Your task to perform on an android device: turn vacation reply on in the gmail app Image 0: 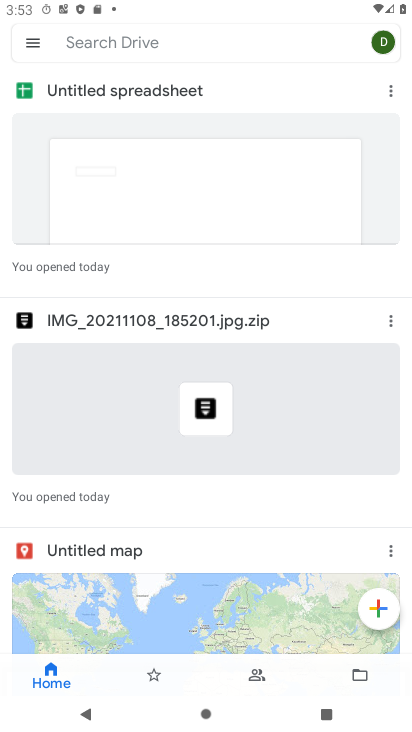
Step 0: press home button
Your task to perform on an android device: turn vacation reply on in the gmail app Image 1: 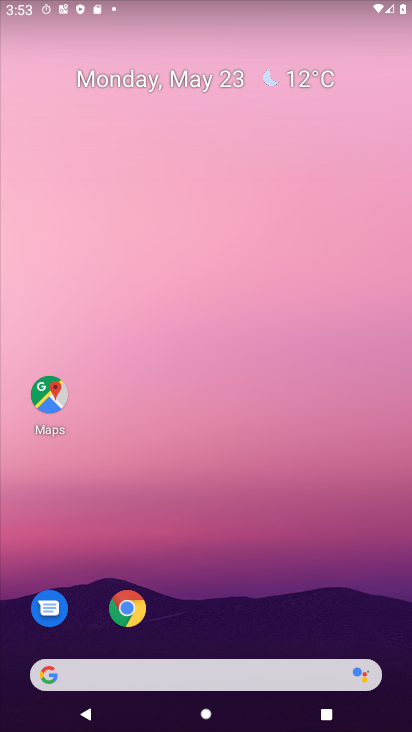
Step 1: drag from (283, 474) to (199, 6)
Your task to perform on an android device: turn vacation reply on in the gmail app Image 2: 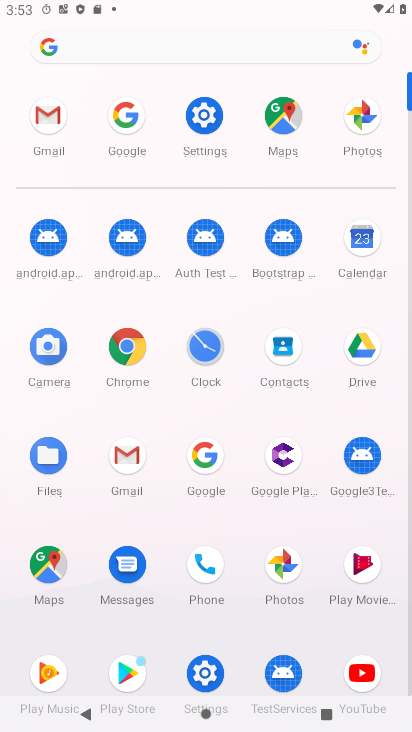
Step 2: click (134, 456)
Your task to perform on an android device: turn vacation reply on in the gmail app Image 3: 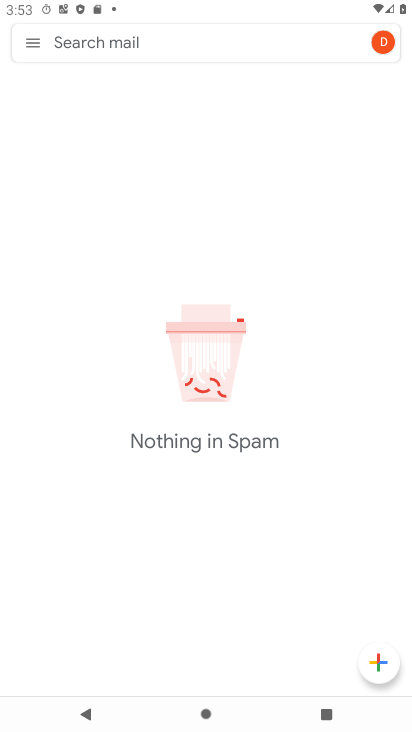
Step 3: click (40, 44)
Your task to perform on an android device: turn vacation reply on in the gmail app Image 4: 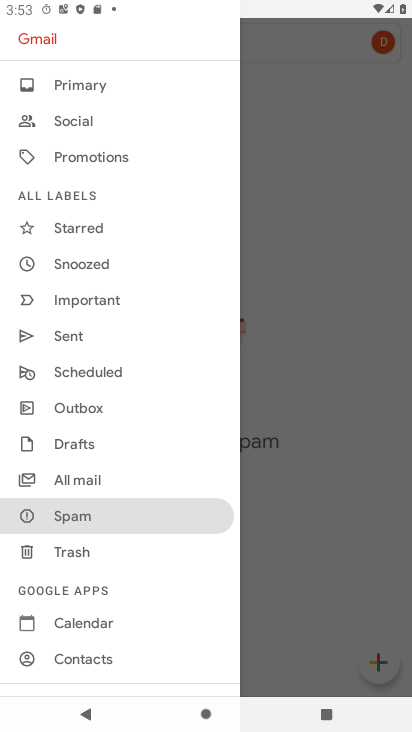
Step 4: drag from (156, 642) to (123, 182)
Your task to perform on an android device: turn vacation reply on in the gmail app Image 5: 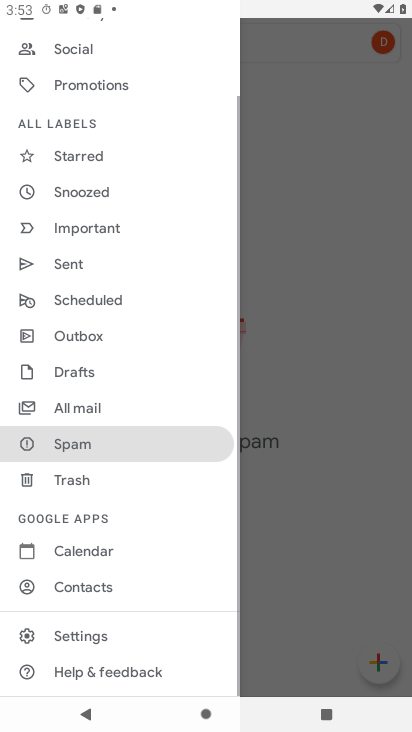
Step 5: click (98, 633)
Your task to perform on an android device: turn vacation reply on in the gmail app Image 6: 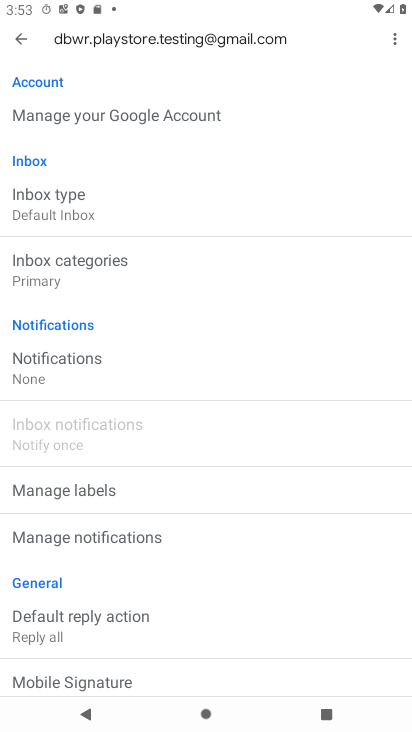
Step 6: drag from (151, 632) to (181, 58)
Your task to perform on an android device: turn vacation reply on in the gmail app Image 7: 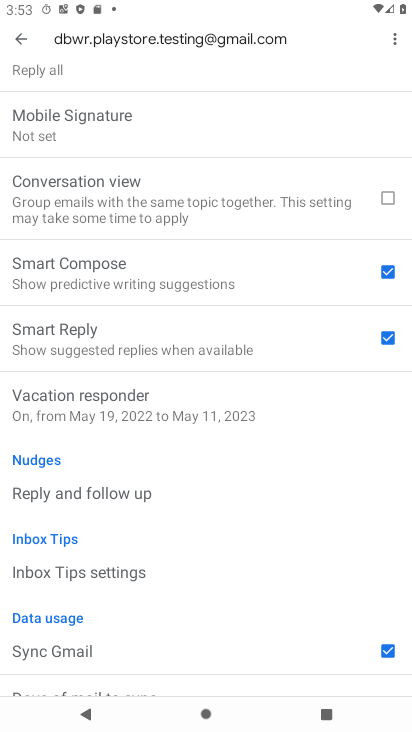
Step 7: click (160, 409)
Your task to perform on an android device: turn vacation reply on in the gmail app Image 8: 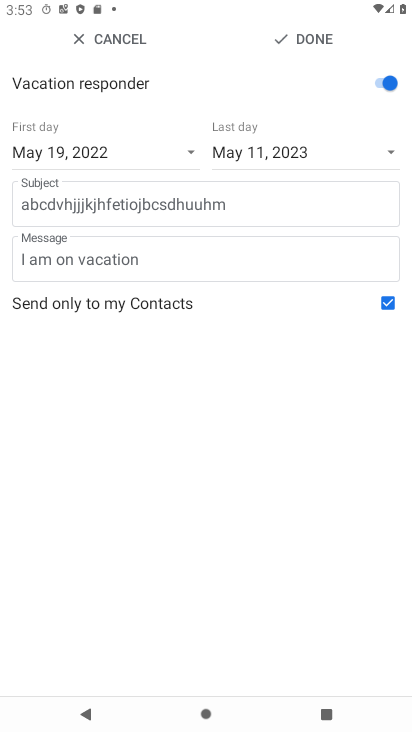
Step 8: click (320, 36)
Your task to perform on an android device: turn vacation reply on in the gmail app Image 9: 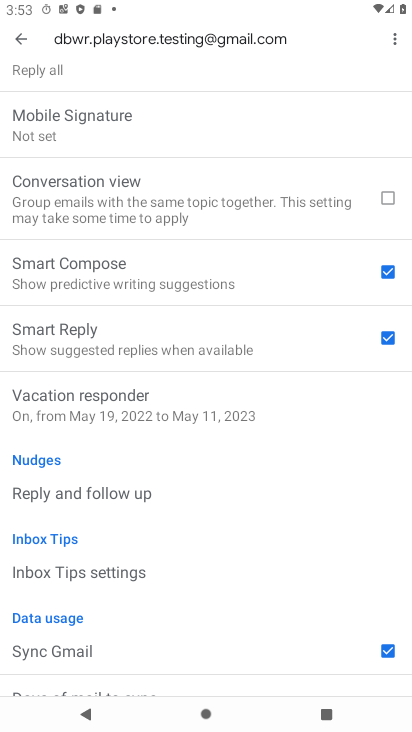
Step 9: task complete